Your task to perform on an android device: remove spam from my inbox in the gmail app Image 0: 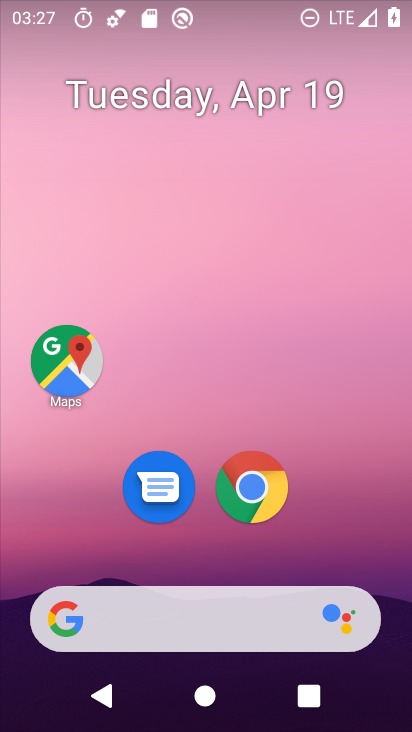
Step 0: drag from (194, 542) to (263, 69)
Your task to perform on an android device: remove spam from my inbox in the gmail app Image 1: 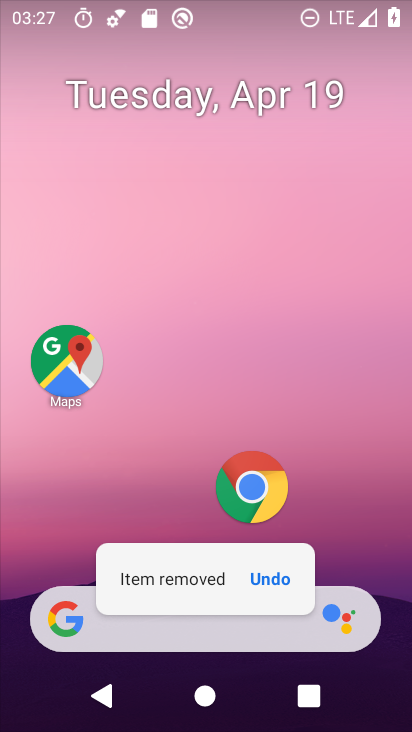
Step 1: drag from (136, 524) to (252, 50)
Your task to perform on an android device: remove spam from my inbox in the gmail app Image 2: 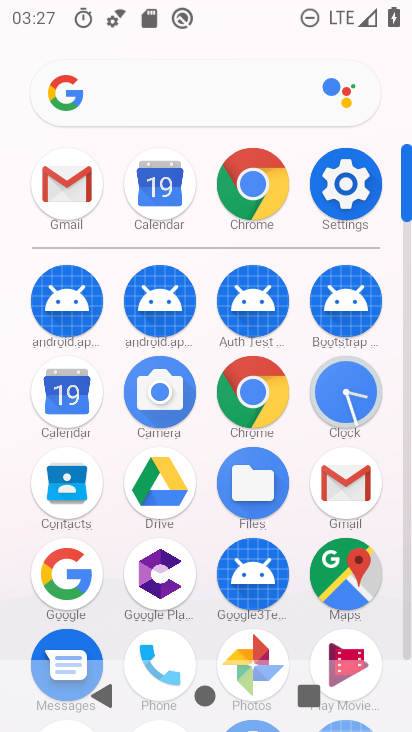
Step 2: click (66, 179)
Your task to perform on an android device: remove spam from my inbox in the gmail app Image 3: 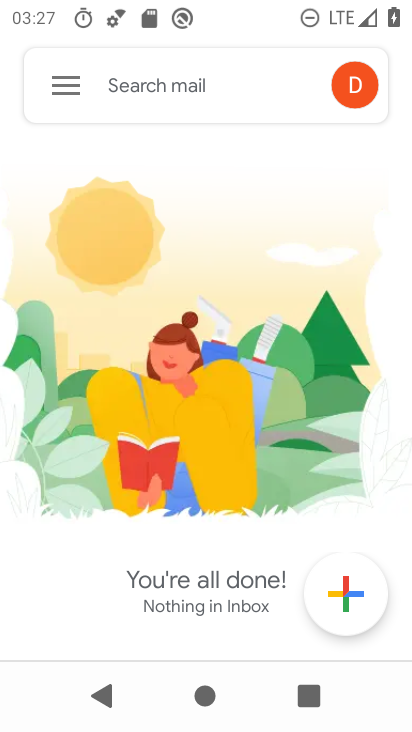
Step 3: click (55, 86)
Your task to perform on an android device: remove spam from my inbox in the gmail app Image 4: 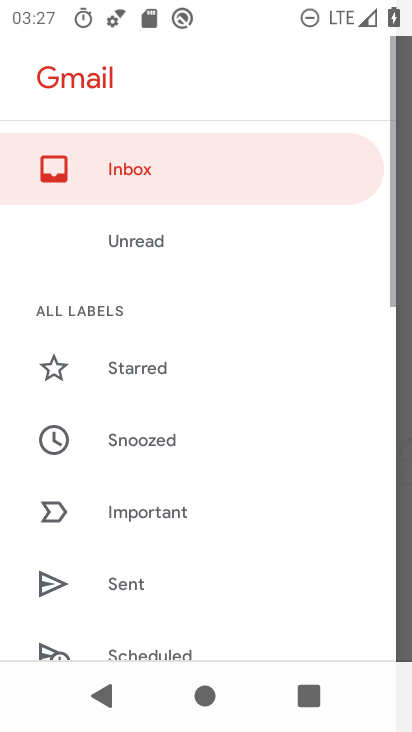
Step 4: drag from (199, 585) to (277, 98)
Your task to perform on an android device: remove spam from my inbox in the gmail app Image 5: 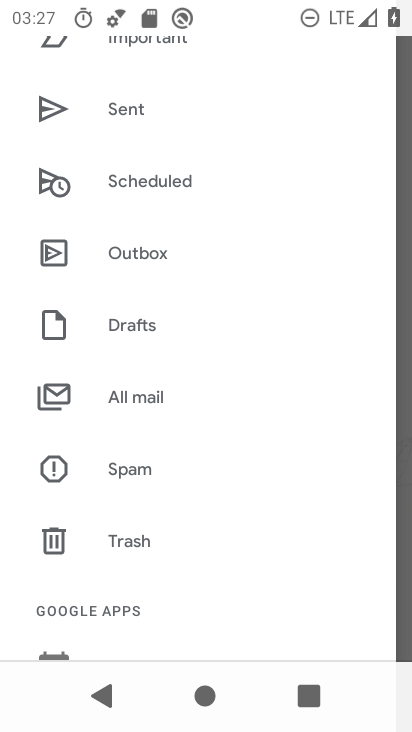
Step 5: click (114, 468)
Your task to perform on an android device: remove spam from my inbox in the gmail app Image 6: 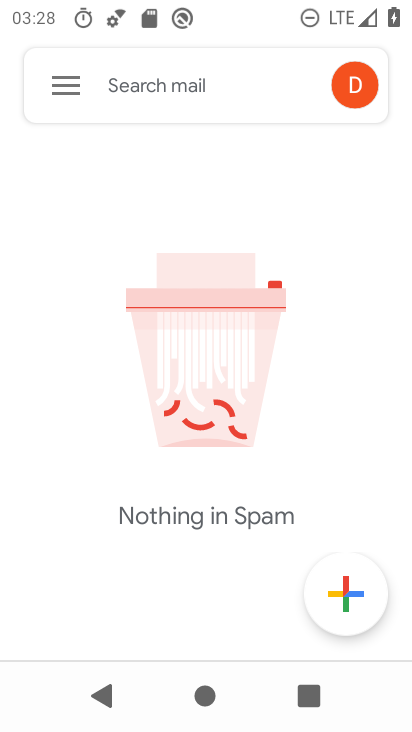
Step 6: task complete